Your task to perform on an android device: Open the phone app and click the voicemail tab. Image 0: 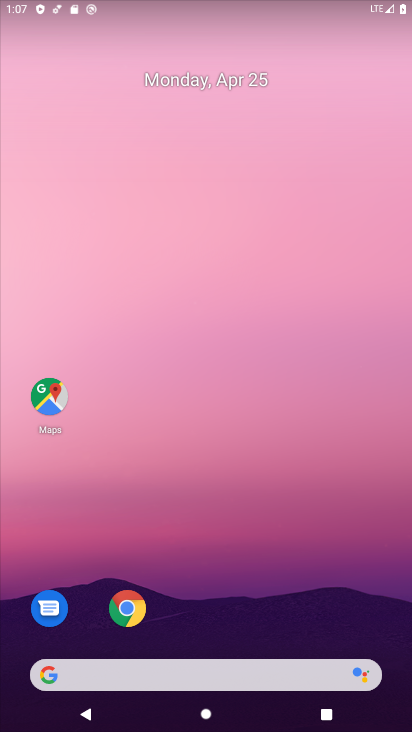
Step 0: drag from (276, 527) to (308, 187)
Your task to perform on an android device: Open the phone app and click the voicemail tab. Image 1: 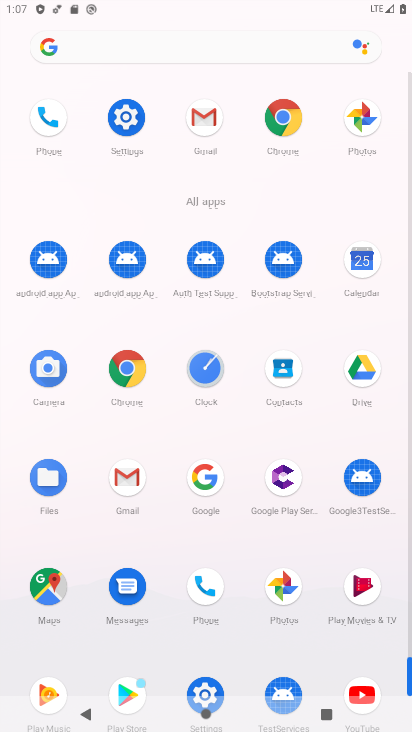
Step 1: click (204, 569)
Your task to perform on an android device: Open the phone app and click the voicemail tab. Image 2: 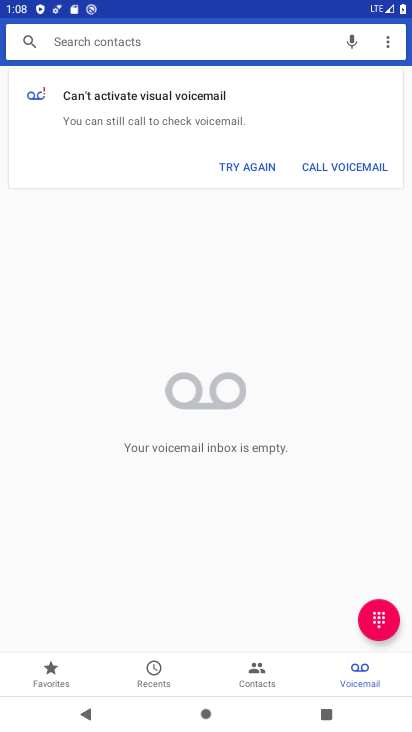
Step 2: click (350, 669)
Your task to perform on an android device: Open the phone app and click the voicemail tab. Image 3: 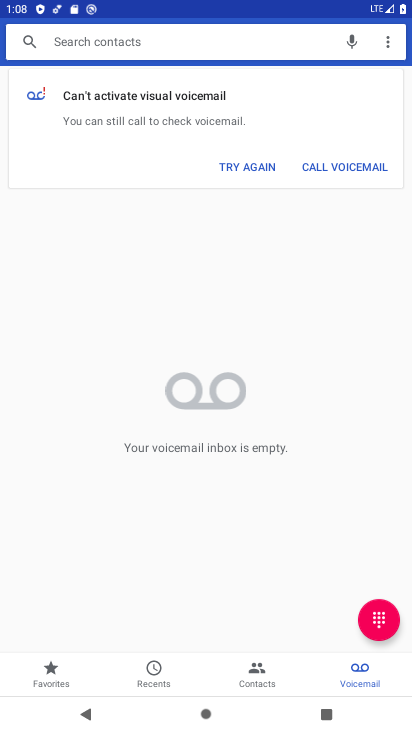
Step 3: task complete